Your task to perform on an android device: clear all cookies in the chrome app Image 0: 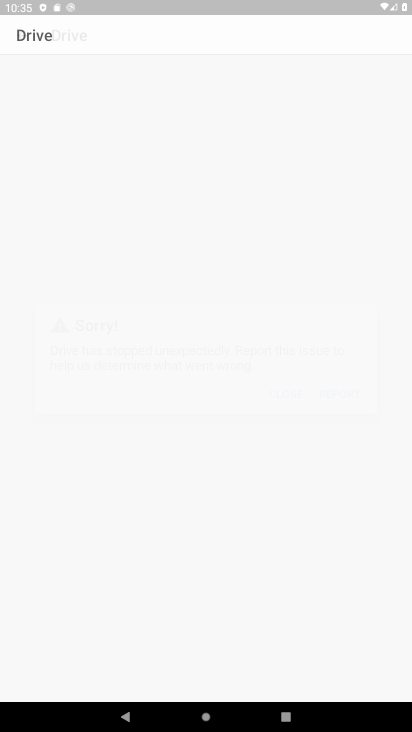
Step 0: drag from (243, 682) to (182, 196)
Your task to perform on an android device: clear all cookies in the chrome app Image 1: 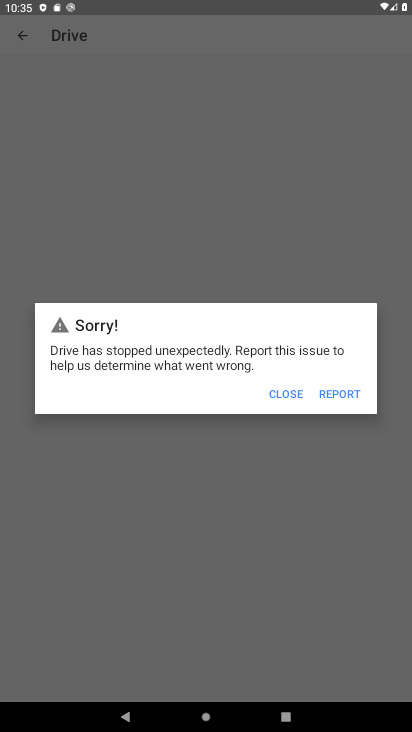
Step 1: click (278, 388)
Your task to perform on an android device: clear all cookies in the chrome app Image 2: 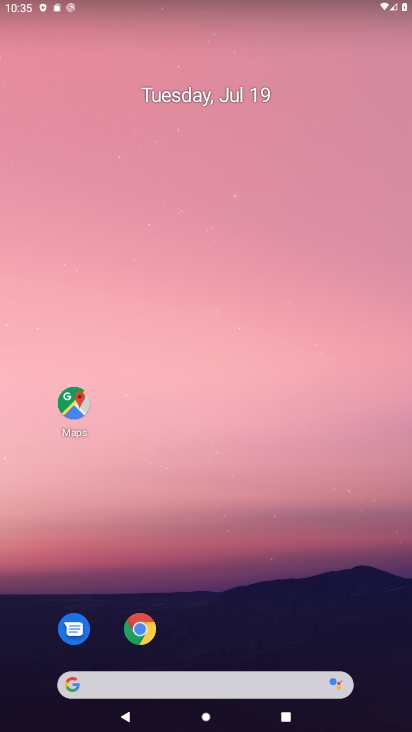
Step 2: drag from (233, 654) to (179, 159)
Your task to perform on an android device: clear all cookies in the chrome app Image 3: 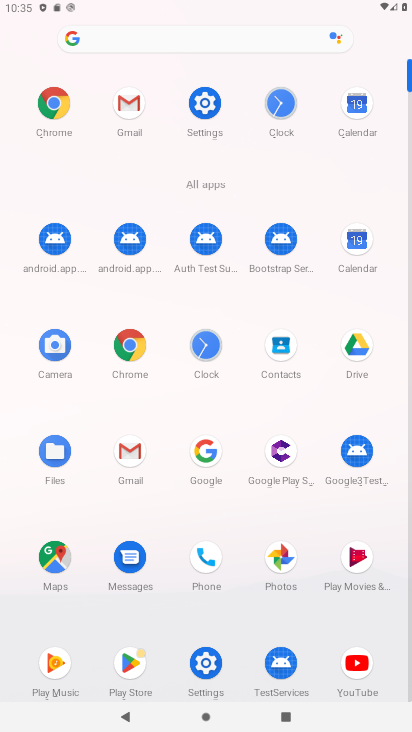
Step 3: click (131, 355)
Your task to perform on an android device: clear all cookies in the chrome app Image 4: 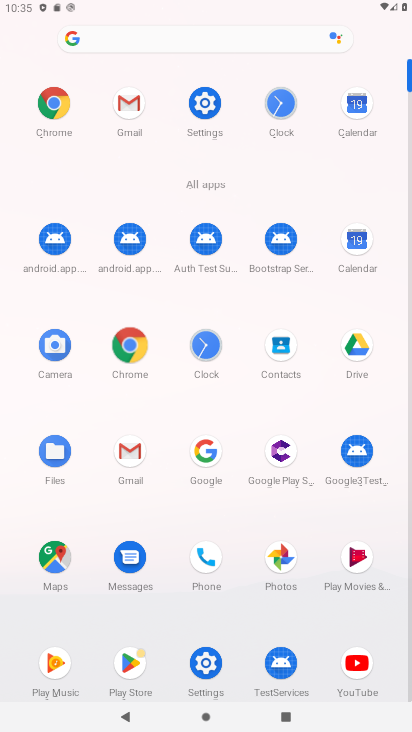
Step 4: click (131, 355)
Your task to perform on an android device: clear all cookies in the chrome app Image 5: 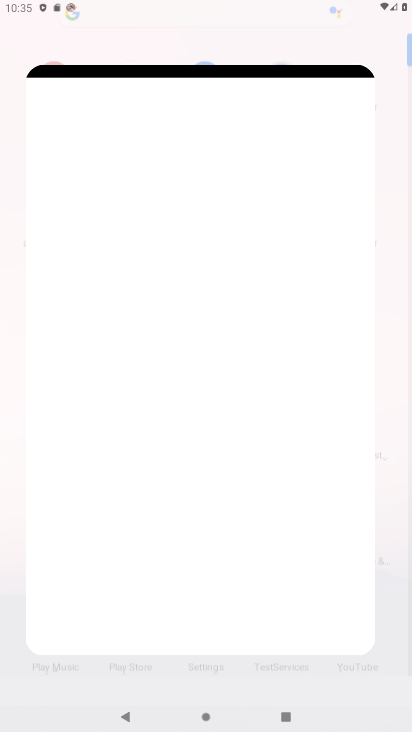
Step 5: click (132, 354)
Your task to perform on an android device: clear all cookies in the chrome app Image 6: 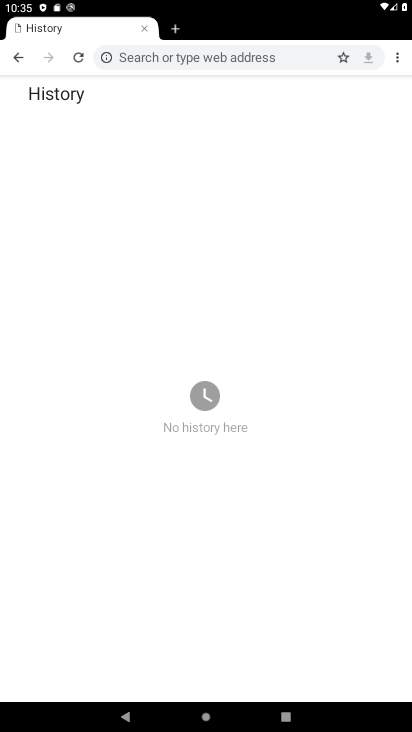
Step 6: drag from (394, 55) to (272, 265)
Your task to perform on an android device: clear all cookies in the chrome app Image 7: 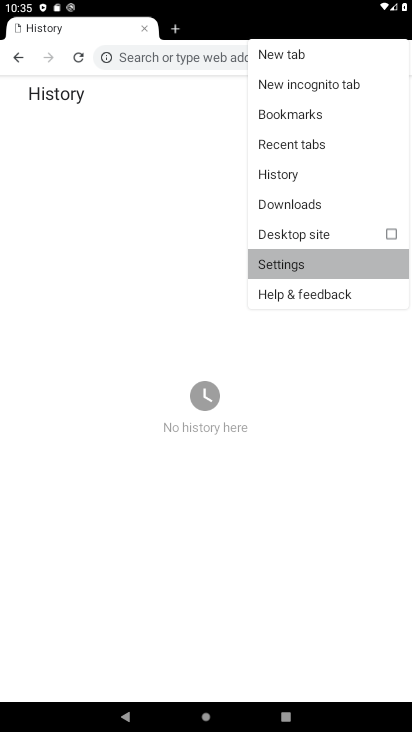
Step 7: click (277, 259)
Your task to perform on an android device: clear all cookies in the chrome app Image 8: 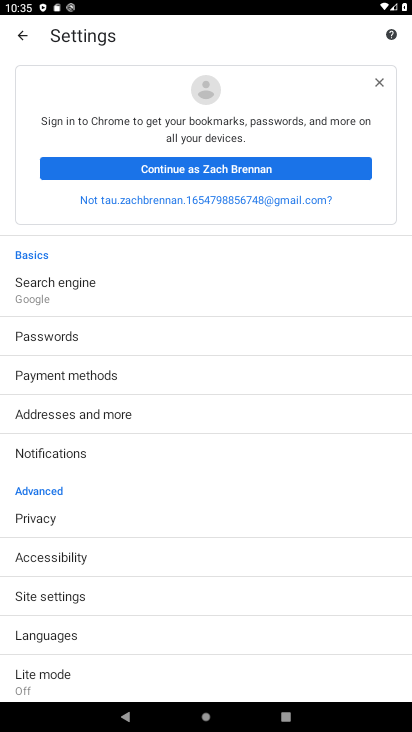
Step 8: click (51, 594)
Your task to perform on an android device: clear all cookies in the chrome app Image 9: 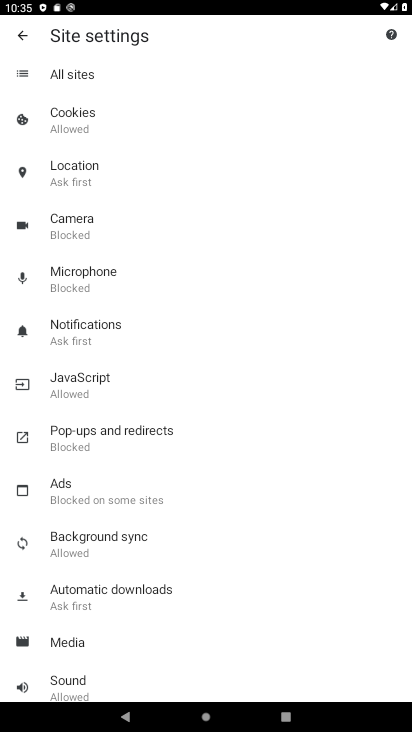
Step 9: click (68, 117)
Your task to perform on an android device: clear all cookies in the chrome app Image 10: 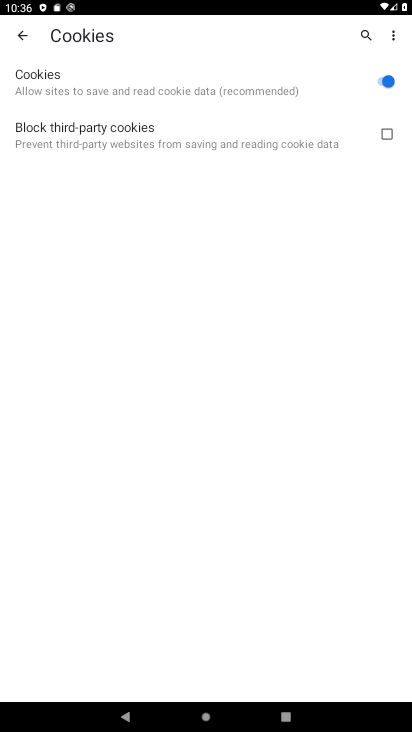
Step 10: click (388, 77)
Your task to perform on an android device: clear all cookies in the chrome app Image 11: 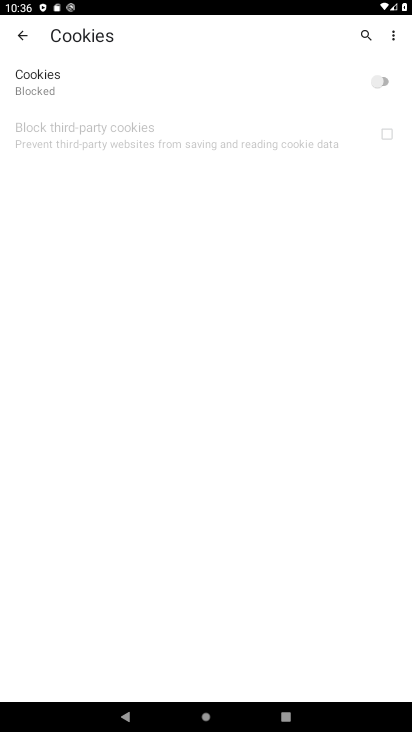
Step 11: task complete